Your task to perform on an android device: Go to CNN.com Image 0: 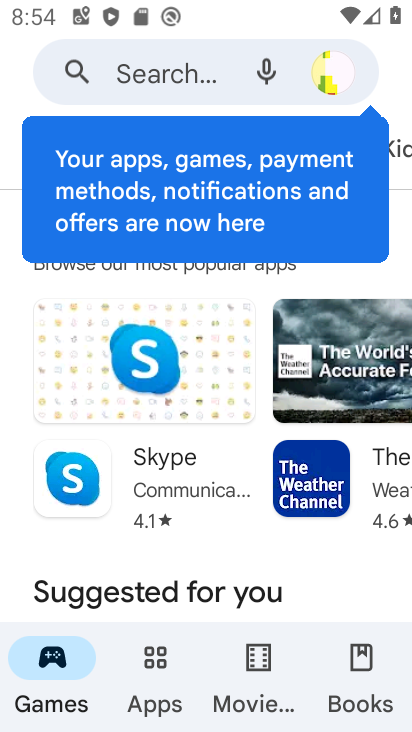
Step 0: press home button
Your task to perform on an android device: Go to CNN.com Image 1: 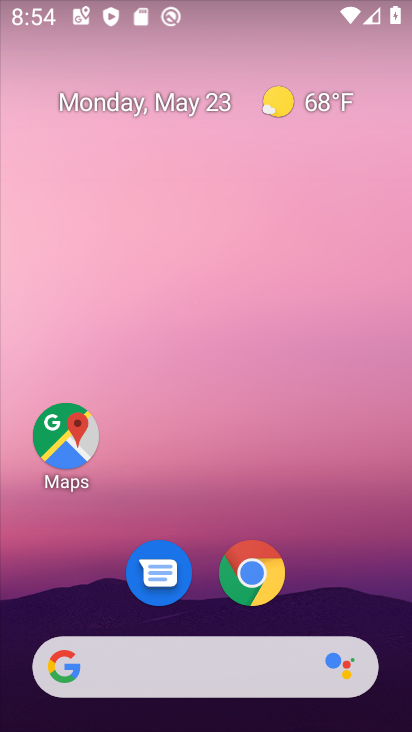
Step 1: click (243, 576)
Your task to perform on an android device: Go to CNN.com Image 2: 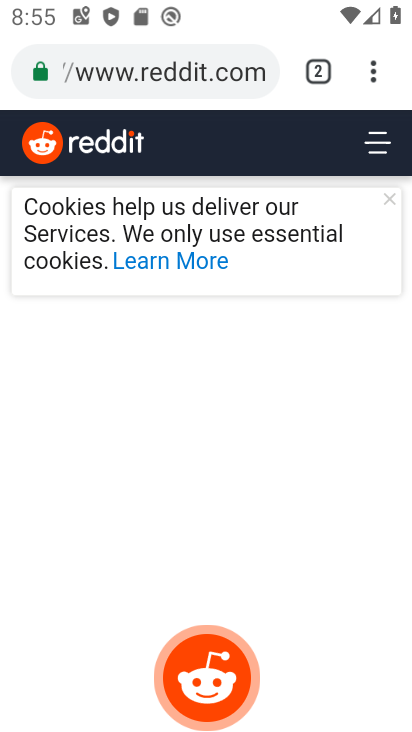
Step 2: click (238, 61)
Your task to perform on an android device: Go to CNN.com Image 3: 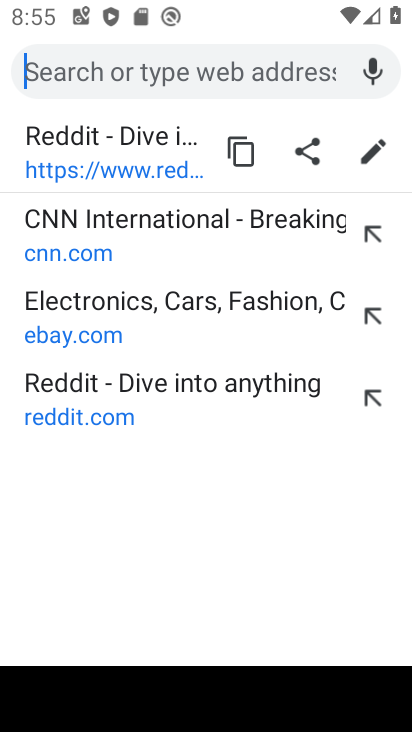
Step 3: click (183, 247)
Your task to perform on an android device: Go to CNN.com Image 4: 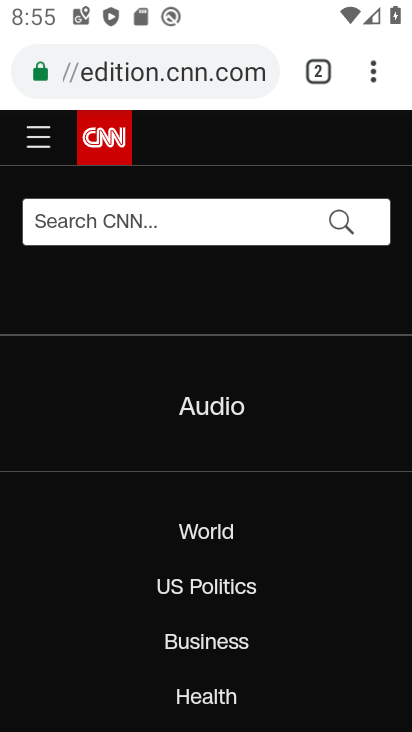
Step 4: task complete